Your task to perform on an android device: change alarm snooze length Image 0: 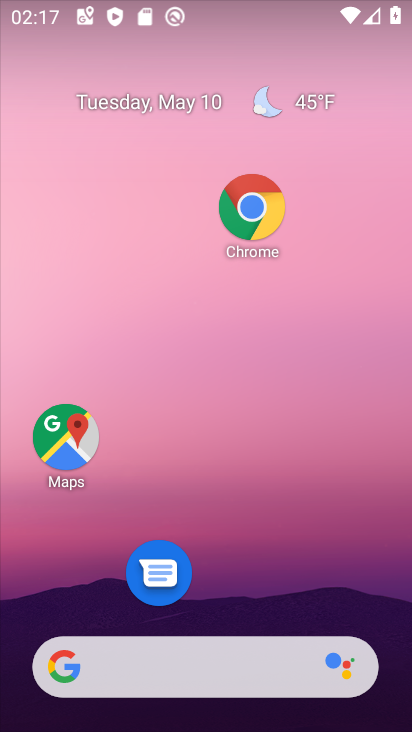
Step 0: drag from (280, 570) to (307, 1)
Your task to perform on an android device: change alarm snooze length Image 1: 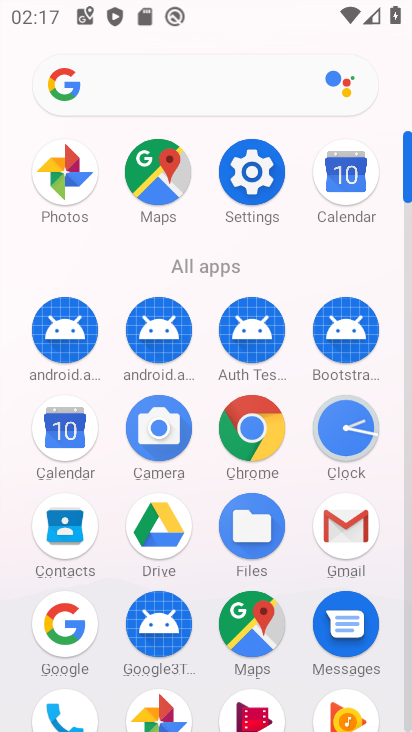
Step 1: click (360, 442)
Your task to perform on an android device: change alarm snooze length Image 2: 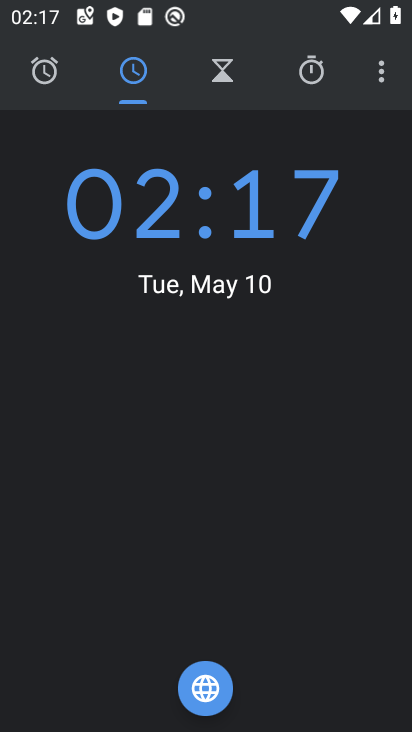
Step 2: click (382, 80)
Your task to perform on an android device: change alarm snooze length Image 3: 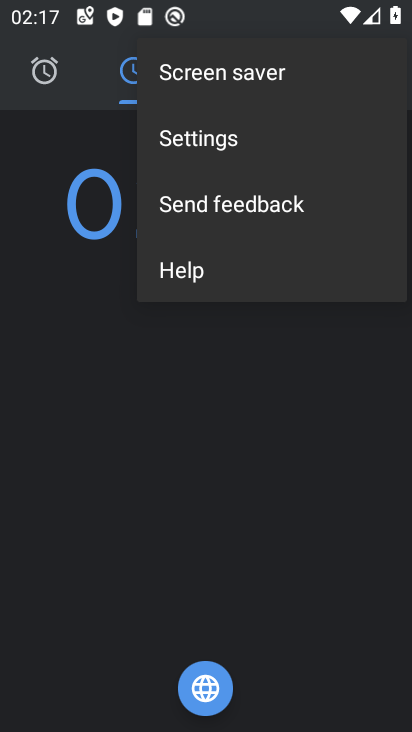
Step 3: click (221, 142)
Your task to perform on an android device: change alarm snooze length Image 4: 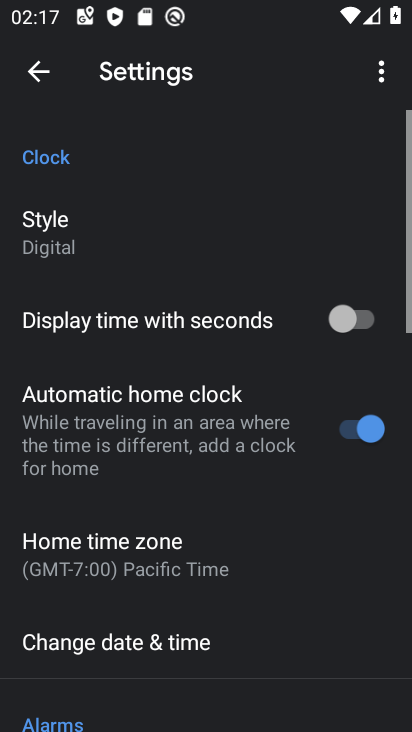
Step 4: drag from (187, 538) to (255, 105)
Your task to perform on an android device: change alarm snooze length Image 5: 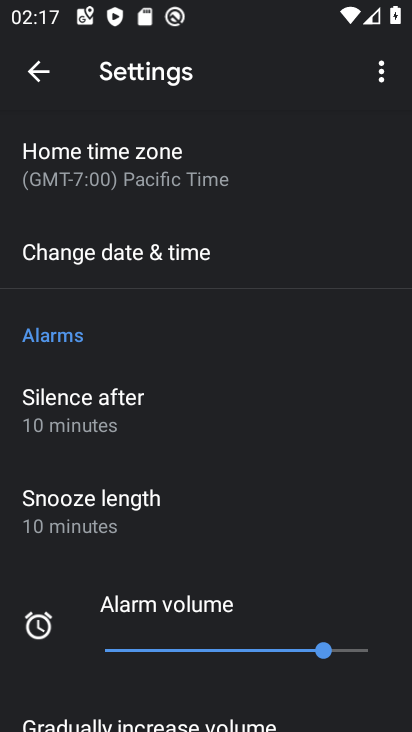
Step 5: drag from (167, 500) to (190, 337)
Your task to perform on an android device: change alarm snooze length Image 6: 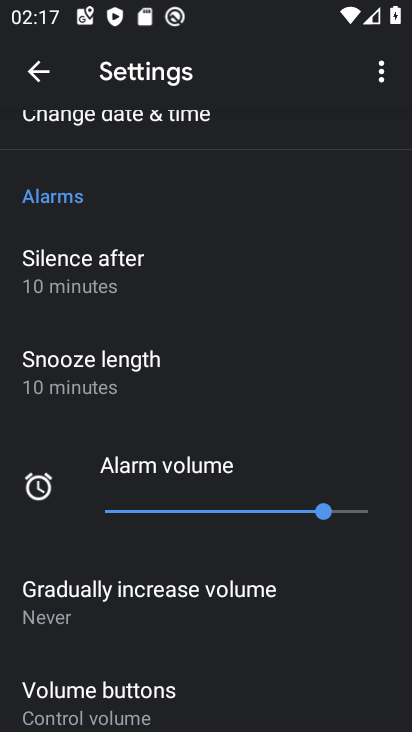
Step 6: click (132, 381)
Your task to perform on an android device: change alarm snooze length Image 7: 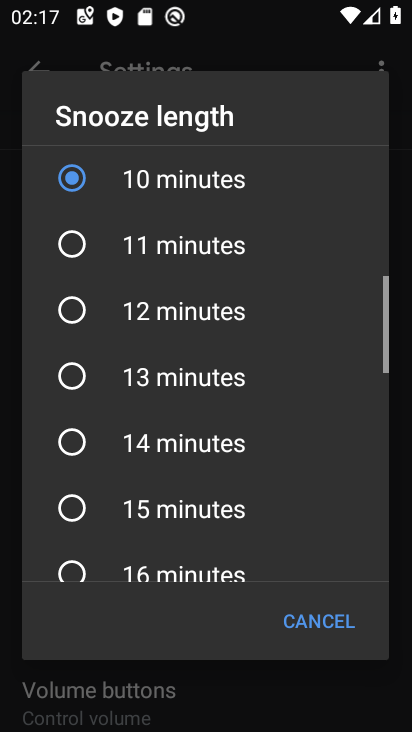
Step 7: click (130, 445)
Your task to perform on an android device: change alarm snooze length Image 8: 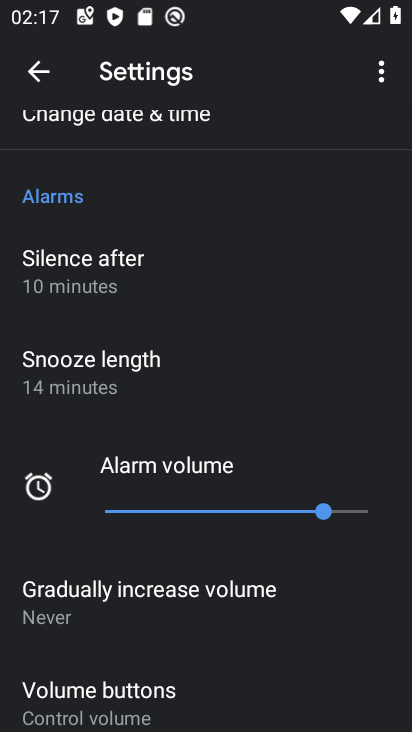
Step 8: task complete